Your task to perform on an android device: show emergency info Image 0: 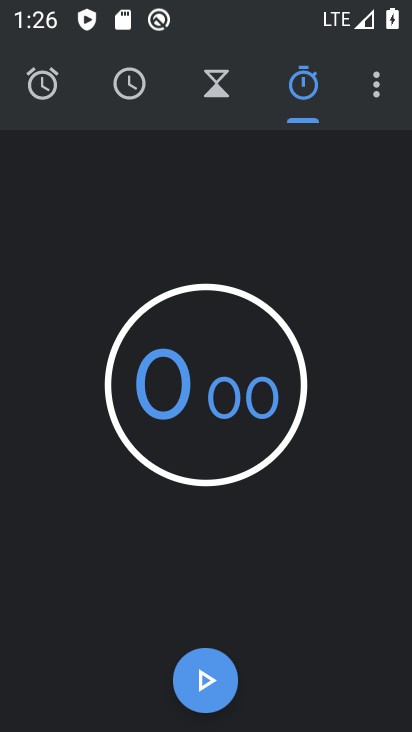
Step 0: press home button
Your task to perform on an android device: show emergency info Image 1: 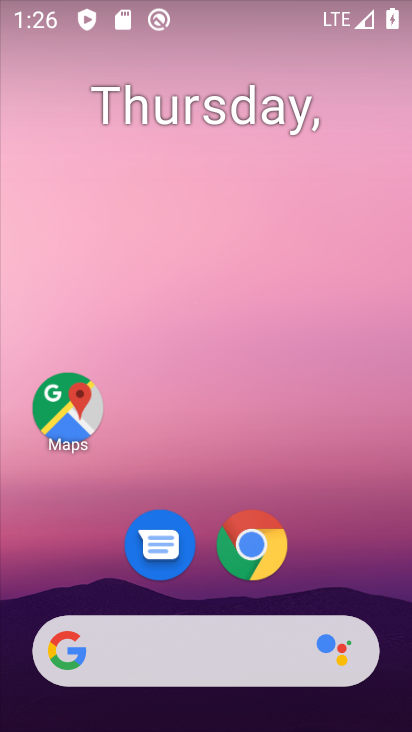
Step 1: drag from (281, 713) to (289, 219)
Your task to perform on an android device: show emergency info Image 2: 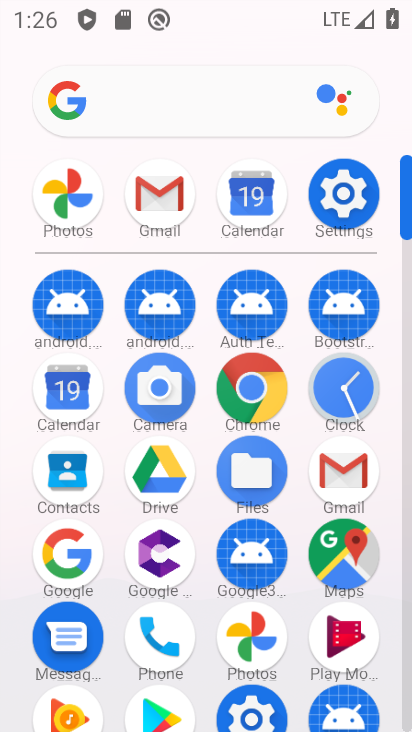
Step 2: click (361, 203)
Your task to perform on an android device: show emergency info Image 3: 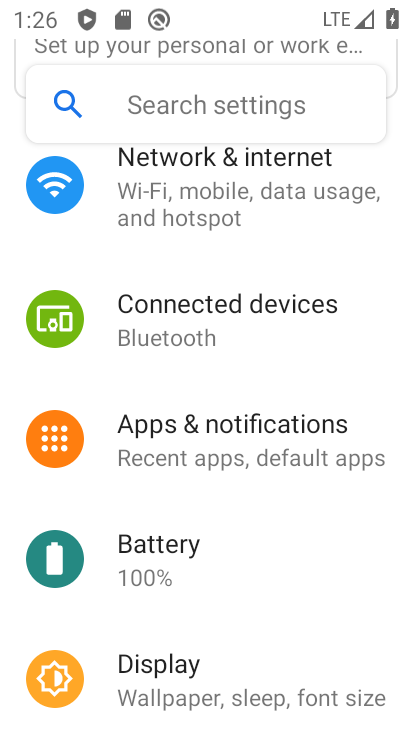
Step 3: drag from (265, 660) to (238, 174)
Your task to perform on an android device: show emergency info Image 4: 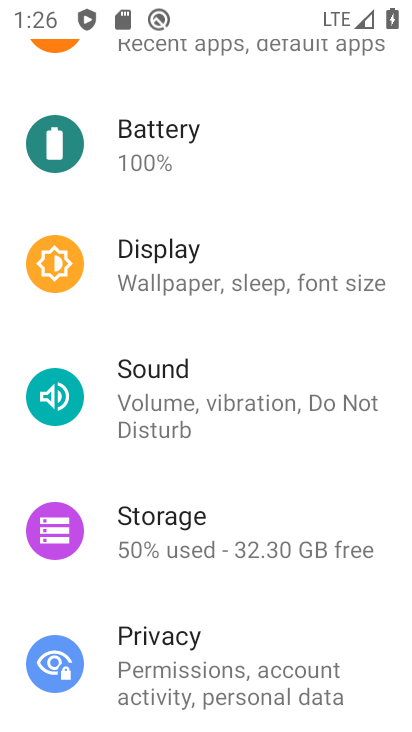
Step 4: drag from (236, 635) to (194, 221)
Your task to perform on an android device: show emergency info Image 5: 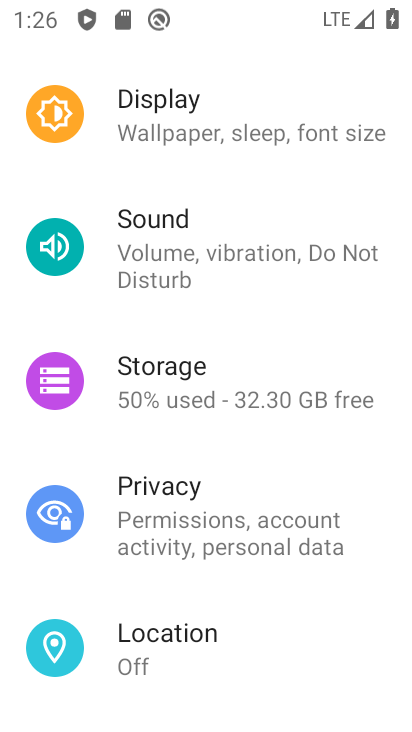
Step 5: drag from (204, 690) to (185, 201)
Your task to perform on an android device: show emergency info Image 6: 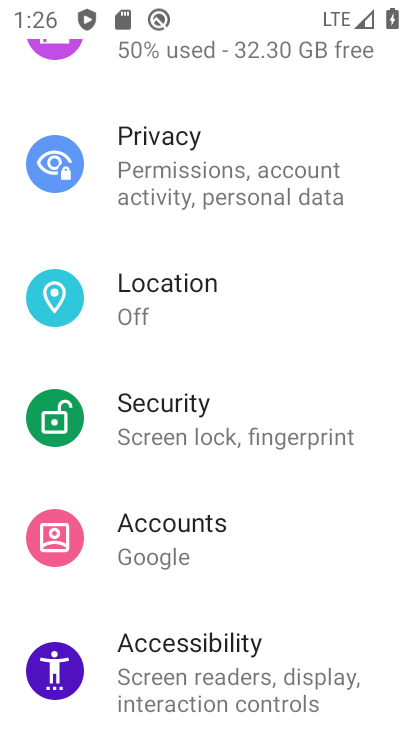
Step 6: drag from (205, 685) to (219, 110)
Your task to perform on an android device: show emergency info Image 7: 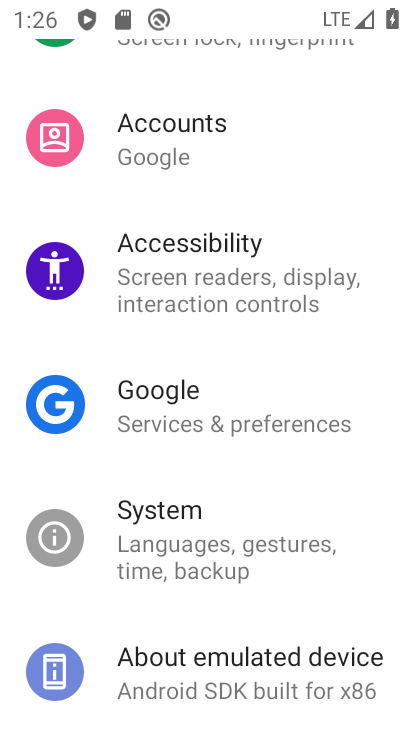
Step 7: drag from (243, 632) to (243, 1)
Your task to perform on an android device: show emergency info Image 8: 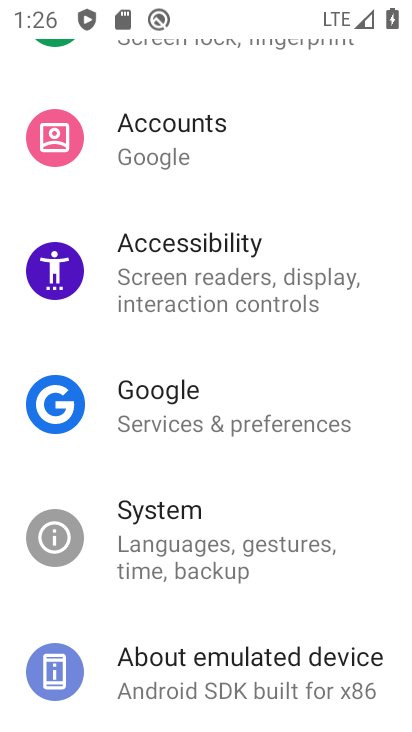
Step 8: drag from (295, 669) to (279, 107)
Your task to perform on an android device: show emergency info Image 9: 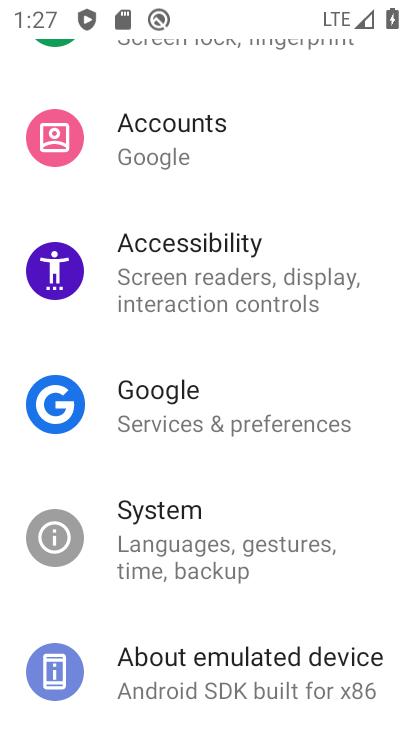
Step 9: click (214, 684)
Your task to perform on an android device: show emergency info Image 10: 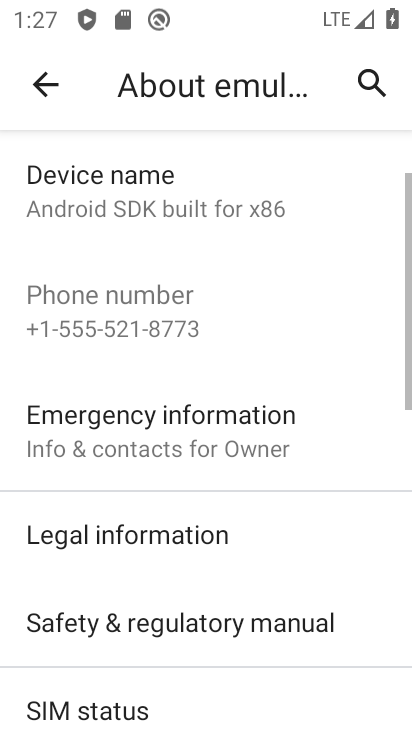
Step 10: click (242, 428)
Your task to perform on an android device: show emergency info Image 11: 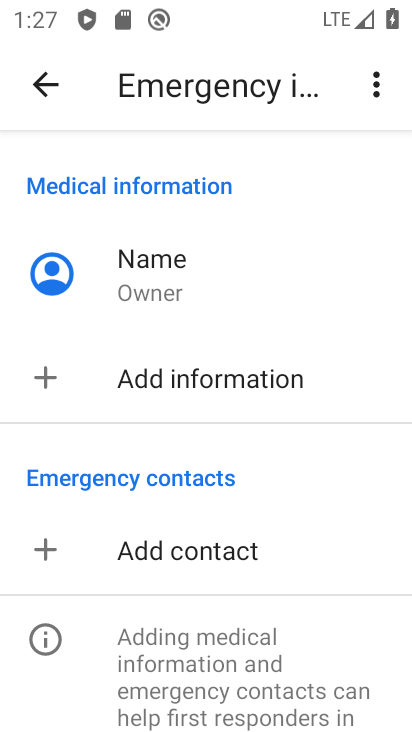
Step 11: task complete